Your task to perform on an android device: toggle data saver in the chrome app Image 0: 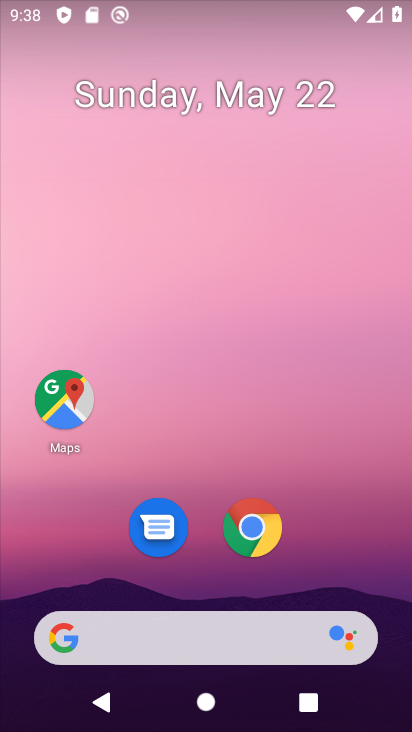
Step 0: click (255, 534)
Your task to perform on an android device: toggle data saver in the chrome app Image 1: 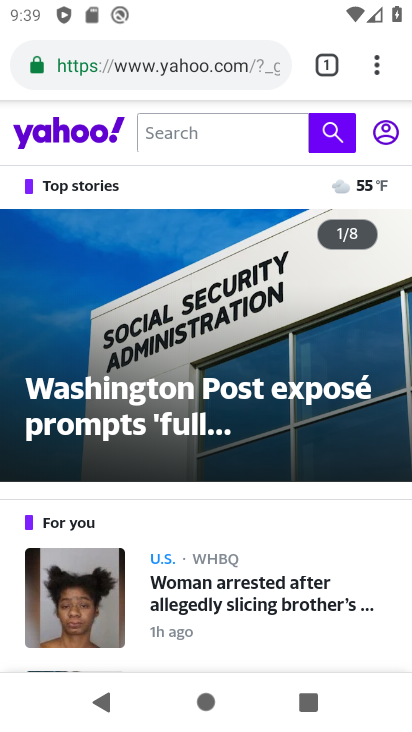
Step 1: click (371, 55)
Your task to perform on an android device: toggle data saver in the chrome app Image 2: 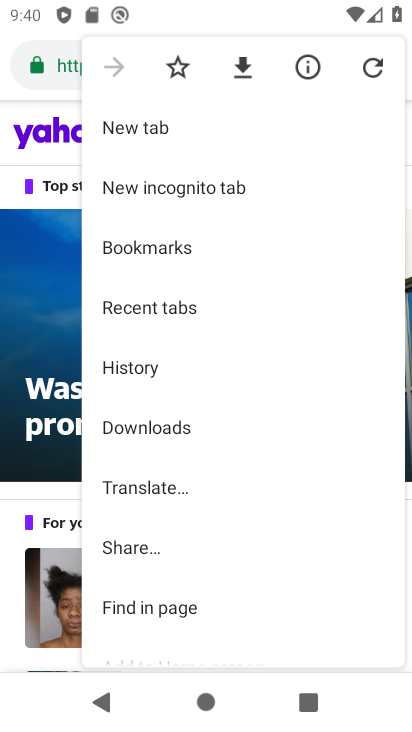
Step 2: click (16, 92)
Your task to perform on an android device: toggle data saver in the chrome app Image 3: 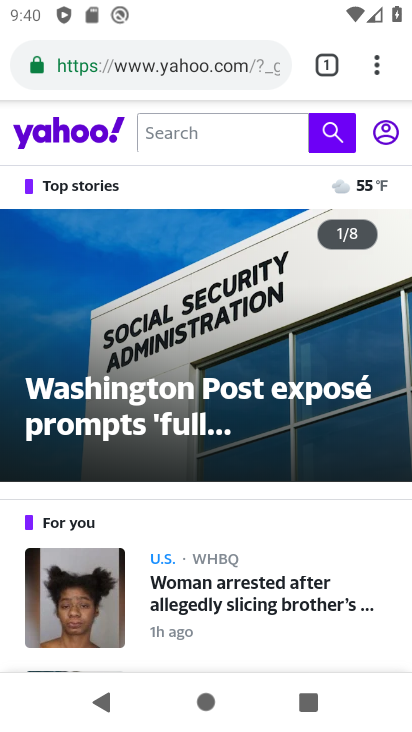
Step 3: task complete